Your task to perform on an android device: Open the calendar app, open the side menu, and click the "Day" option Image 0: 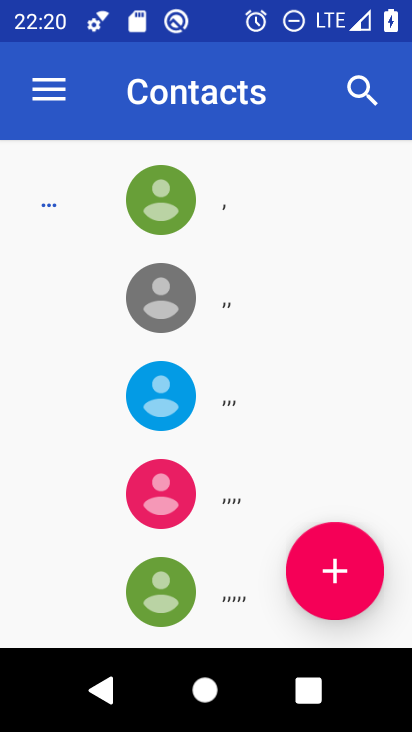
Step 0: press home button
Your task to perform on an android device: Open the calendar app, open the side menu, and click the "Day" option Image 1: 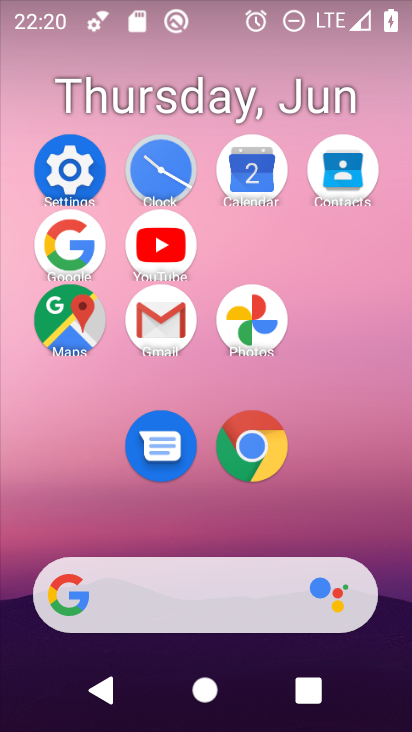
Step 1: click (248, 176)
Your task to perform on an android device: Open the calendar app, open the side menu, and click the "Day" option Image 2: 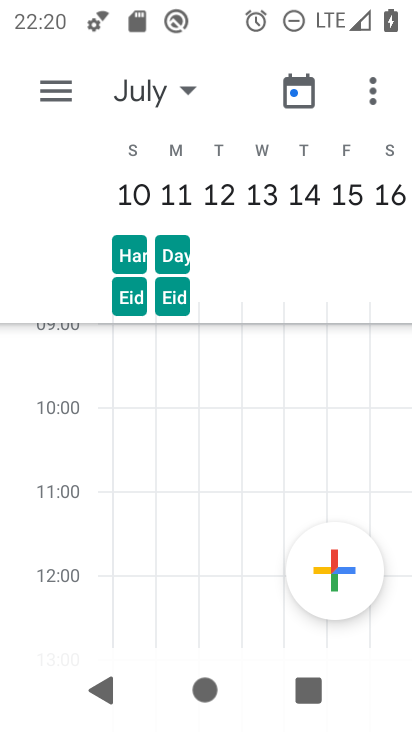
Step 2: click (56, 82)
Your task to perform on an android device: Open the calendar app, open the side menu, and click the "Day" option Image 3: 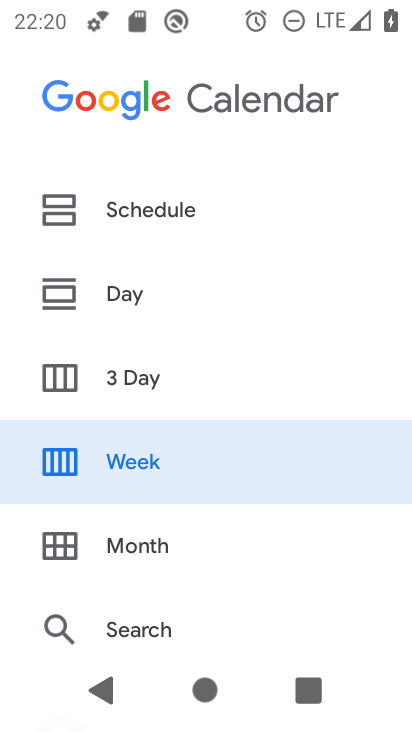
Step 3: click (165, 292)
Your task to perform on an android device: Open the calendar app, open the side menu, and click the "Day" option Image 4: 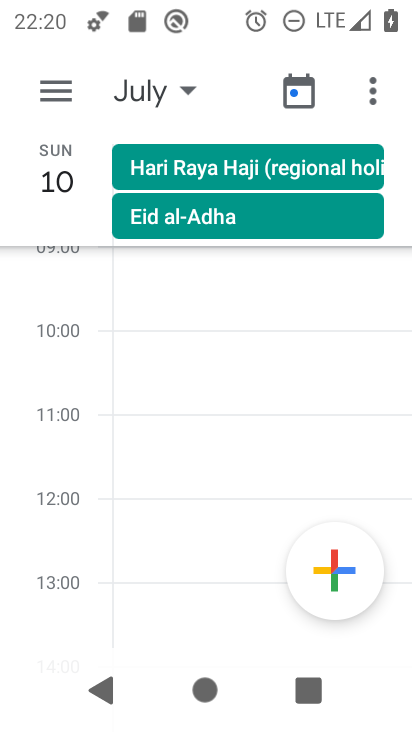
Step 4: task complete